Your task to perform on an android device: Open settings Image 0: 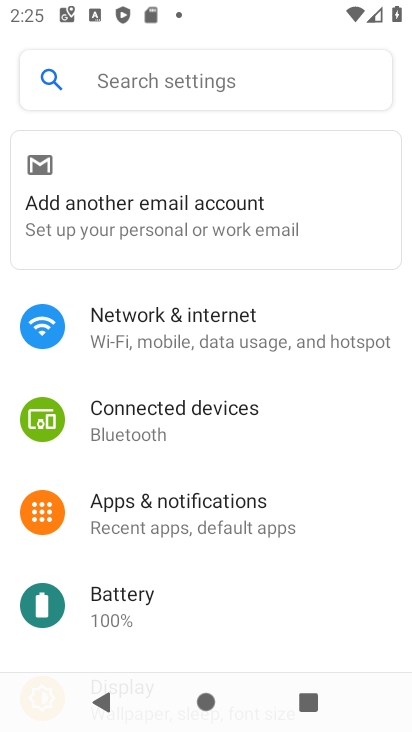
Step 0: task complete